Your task to perform on an android device: open chrome and create a bookmark for the current page Image 0: 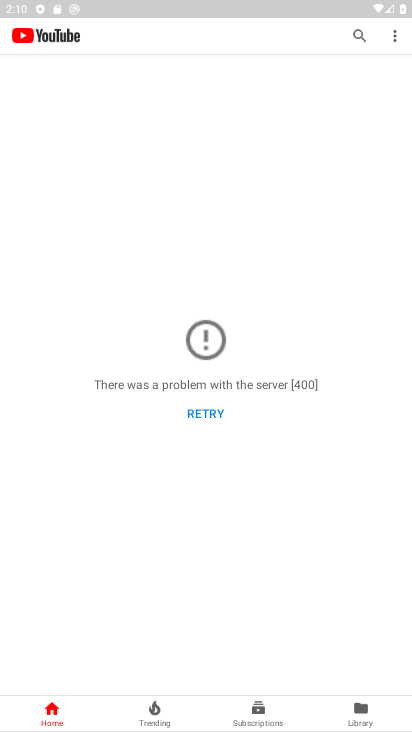
Step 0: press home button
Your task to perform on an android device: open chrome and create a bookmark for the current page Image 1: 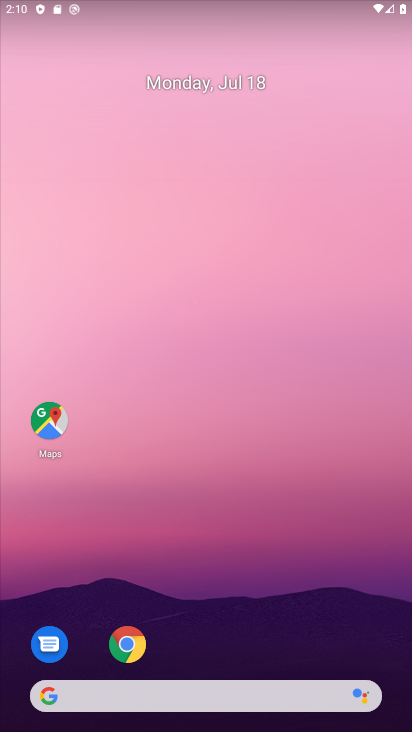
Step 1: drag from (332, 616) to (244, 214)
Your task to perform on an android device: open chrome and create a bookmark for the current page Image 2: 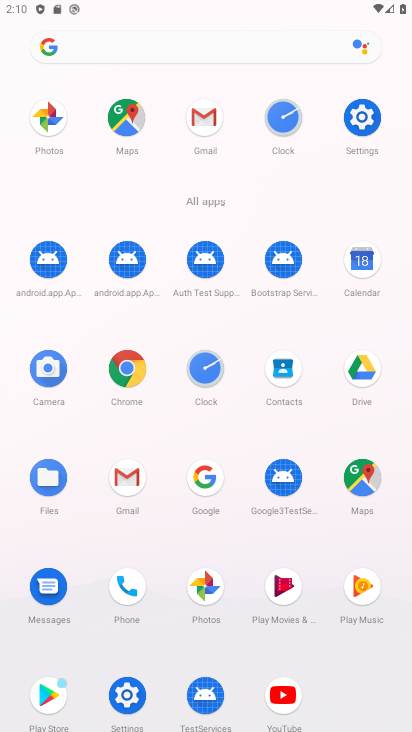
Step 2: click (124, 376)
Your task to perform on an android device: open chrome and create a bookmark for the current page Image 3: 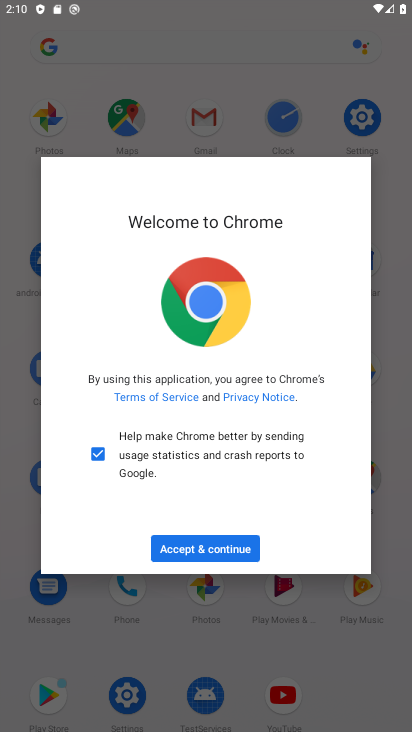
Step 3: click (235, 540)
Your task to perform on an android device: open chrome and create a bookmark for the current page Image 4: 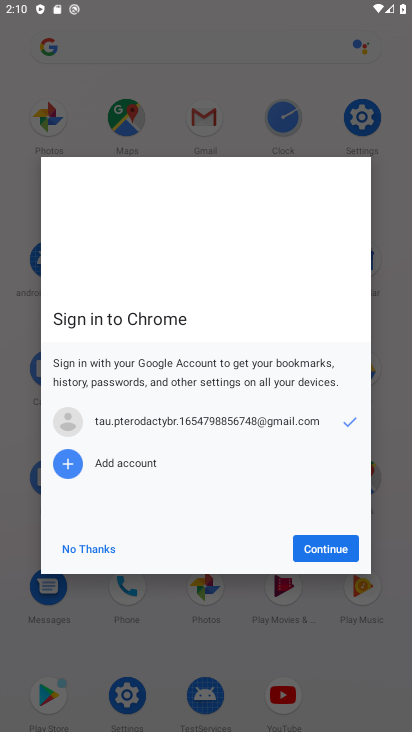
Step 4: click (317, 544)
Your task to perform on an android device: open chrome and create a bookmark for the current page Image 5: 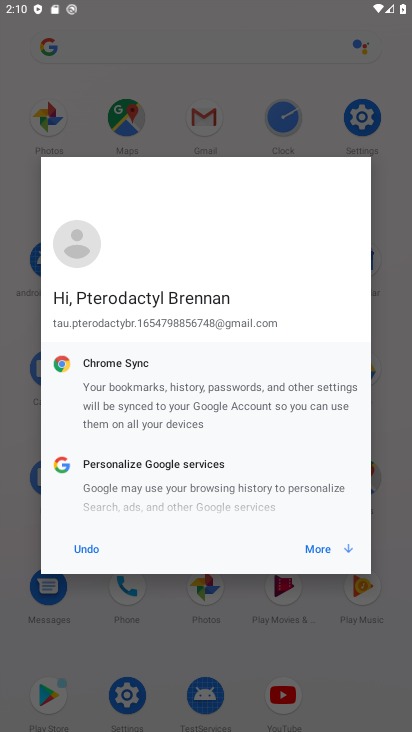
Step 5: click (317, 544)
Your task to perform on an android device: open chrome and create a bookmark for the current page Image 6: 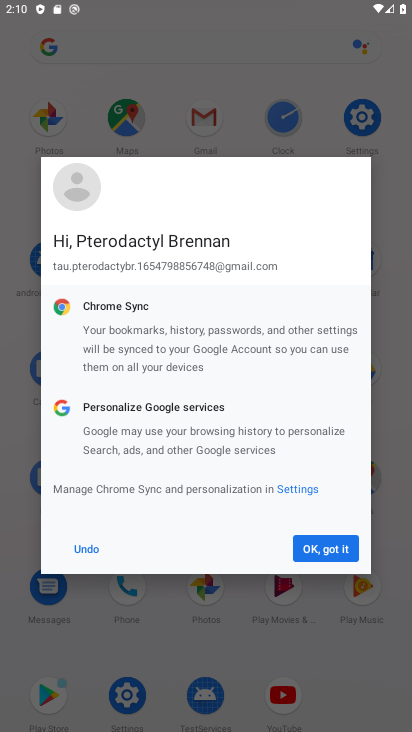
Step 6: click (316, 544)
Your task to perform on an android device: open chrome and create a bookmark for the current page Image 7: 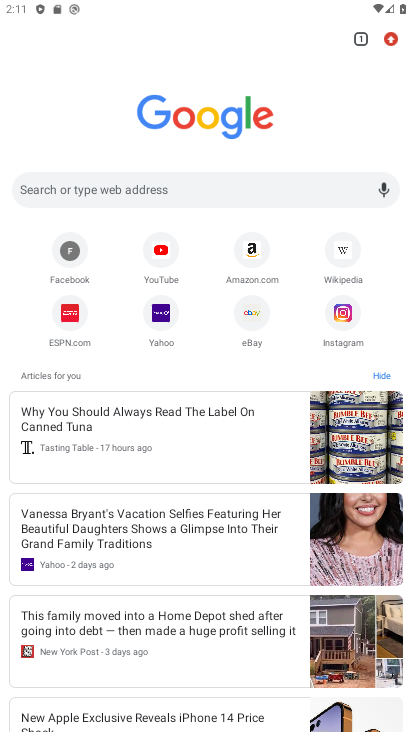
Step 7: click (401, 43)
Your task to perform on an android device: open chrome and create a bookmark for the current page Image 8: 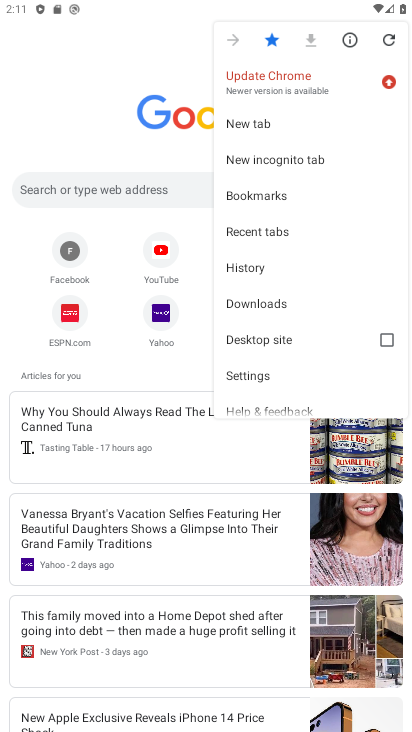
Step 8: task complete